Your task to perform on an android device: move an email to a new category in the gmail app Image 0: 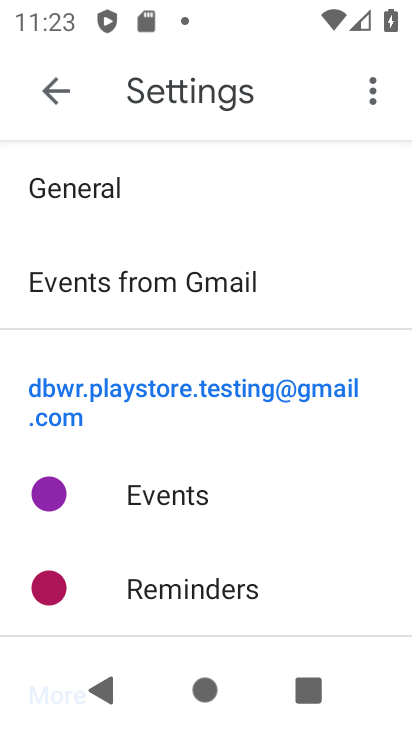
Step 0: press home button
Your task to perform on an android device: move an email to a new category in the gmail app Image 1: 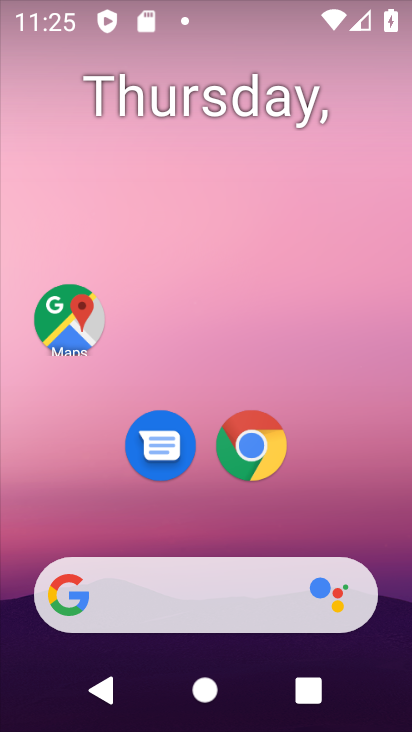
Step 1: drag from (220, 507) to (204, 169)
Your task to perform on an android device: move an email to a new category in the gmail app Image 2: 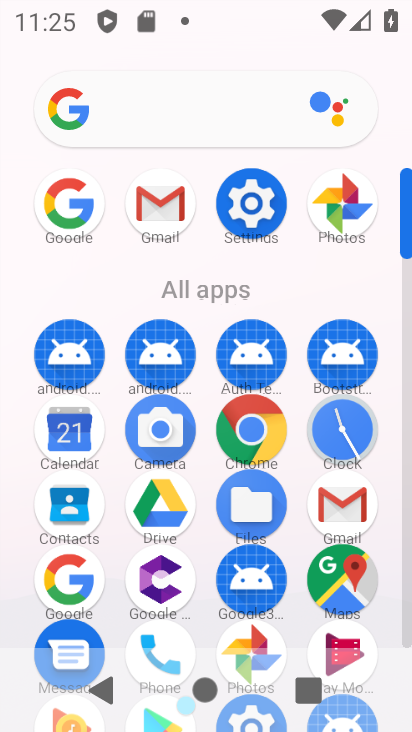
Step 2: click (174, 200)
Your task to perform on an android device: move an email to a new category in the gmail app Image 3: 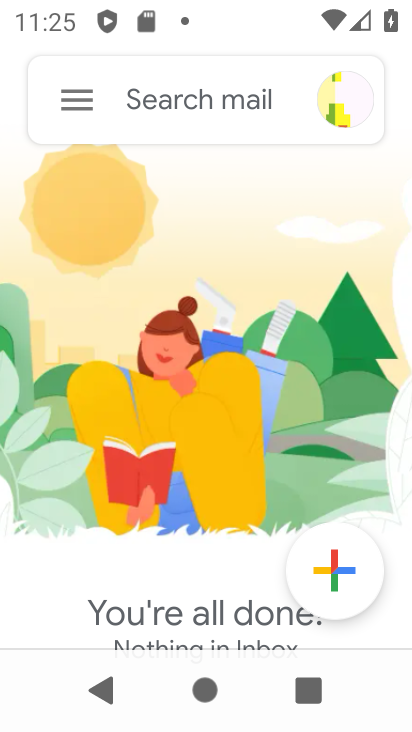
Step 3: click (71, 90)
Your task to perform on an android device: move an email to a new category in the gmail app Image 4: 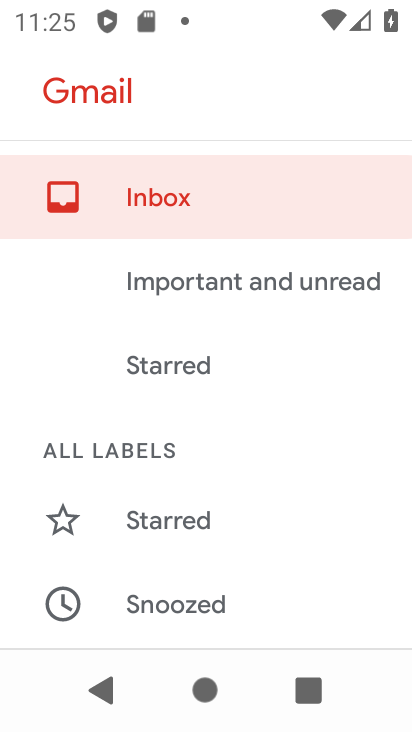
Step 4: drag from (219, 564) to (229, 231)
Your task to perform on an android device: move an email to a new category in the gmail app Image 5: 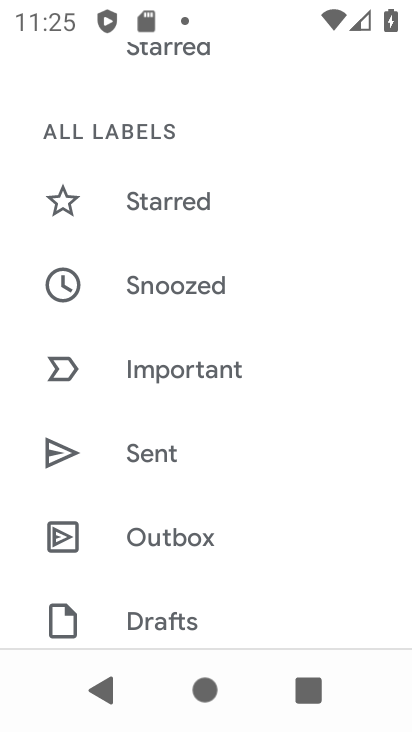
Step 5: drag from (220, 544) to (276, 214)
Your task to perform on an android device: move an email to a new category in the gmail app Image 6: 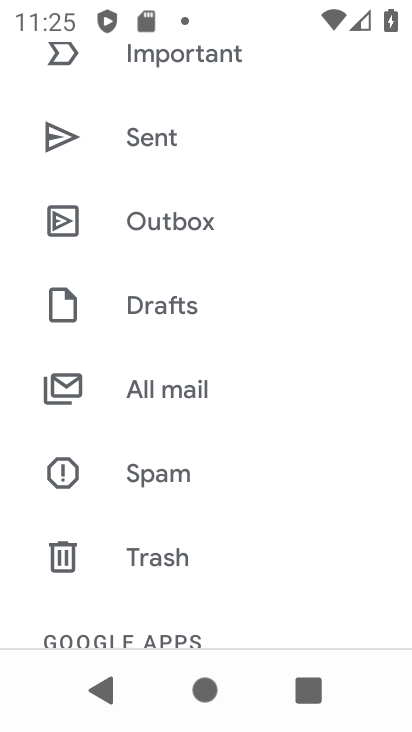
Step 6: click (172, 390)
Your task to perform on an android device: move an email to a new category in the gmail app Image 7: 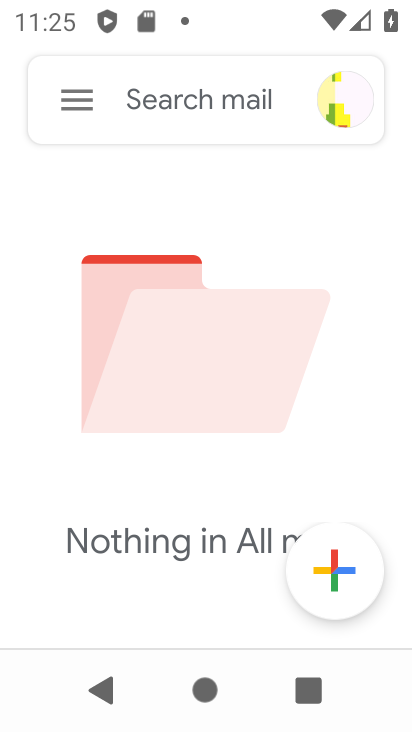
Step 7: task complete